Your task to perform on an android device: empty trash in google photos Image 0: 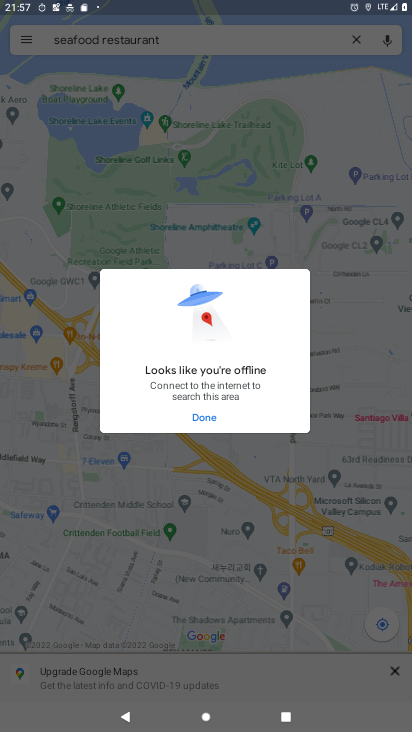
Step 0: click (220, 221)
Your task to perform on an android device: empty trash in google photos Image 1: 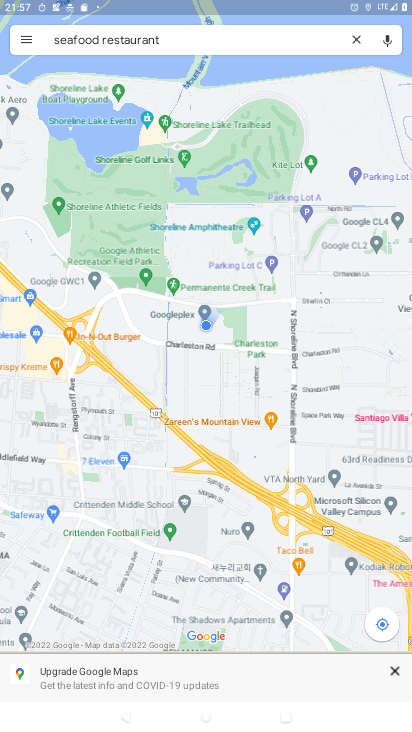
Step 1: task complete